Your task to perform on an android device: turn on translation in the chrome app Image 0: 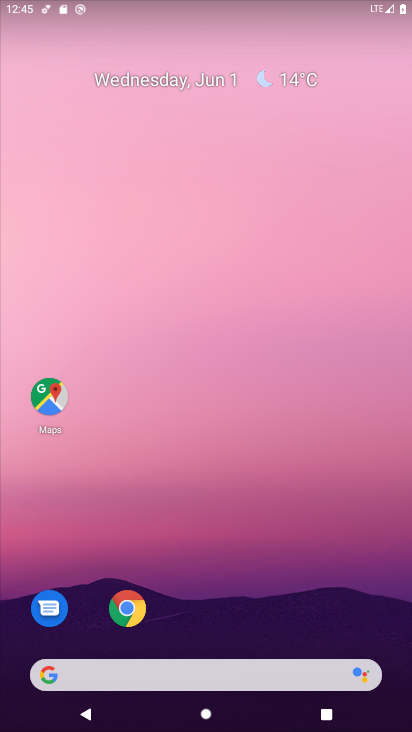
Step 0: click (134, 616)
Your task to perform on an android device: turn on translation in the chrome app Image 1: 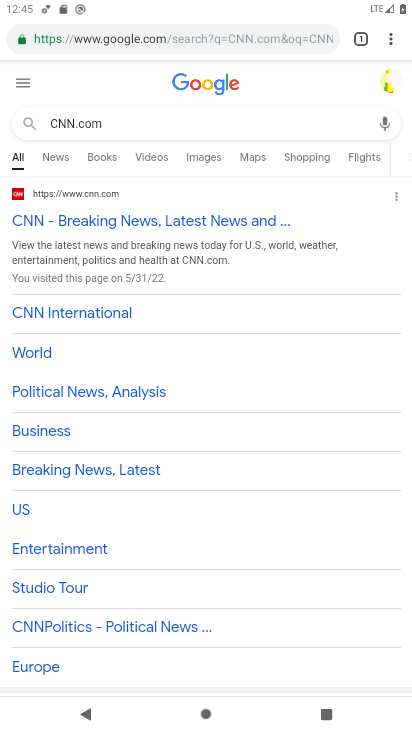
Step 1: click (393, 39)
Your task to perform on an android device: turn on translation in the chrome app Image 2: 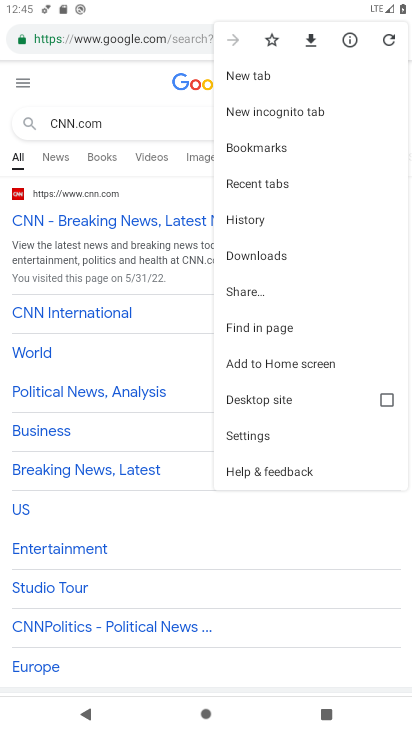
Step 2: click (252, 430)
Your task to perform on an android device: turn on translation in the chrome app Image 3: 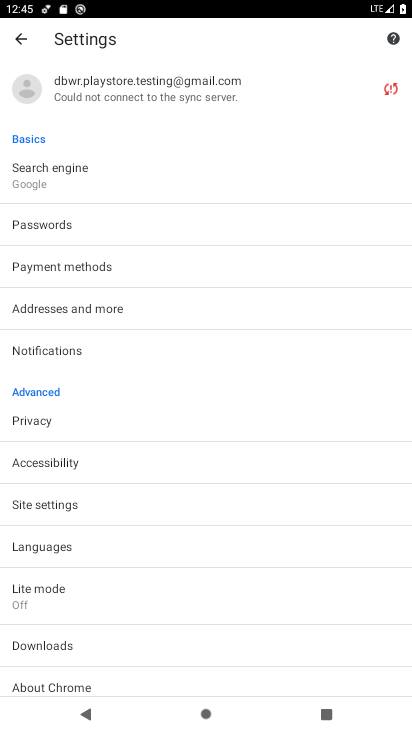
Step 3: drag from (92, 605) to (99, 438)
Your task to perform on an android device: turn on translation in the chrome app Image 4: 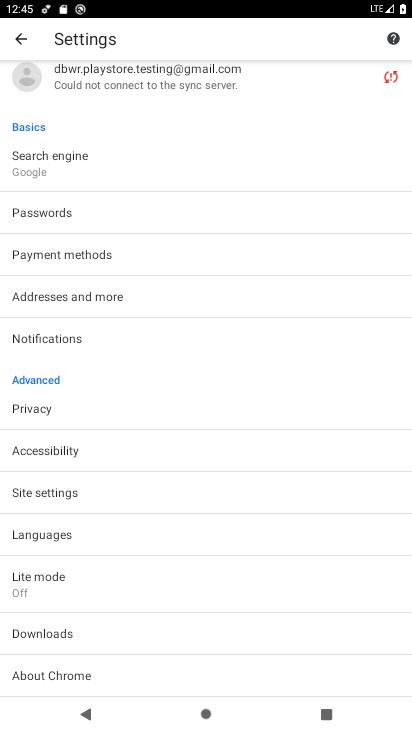
Step 4: click (44, 534)
Your task to perform on an android device: turn on translation in the chrome app Image 5: 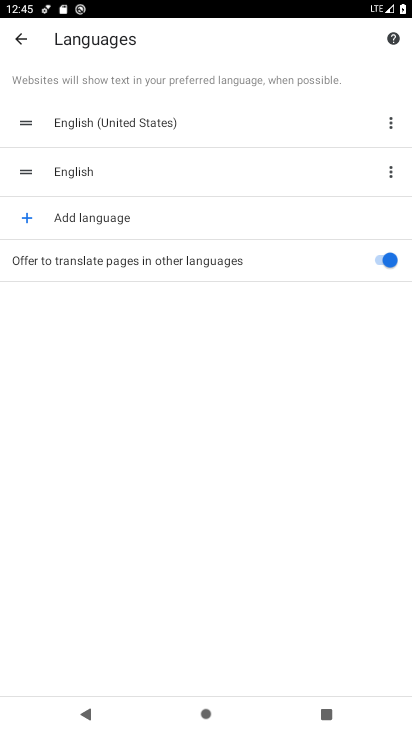
Step 5: task complete